Your task to perform on an android device: star an email in the gmail app Image 0: 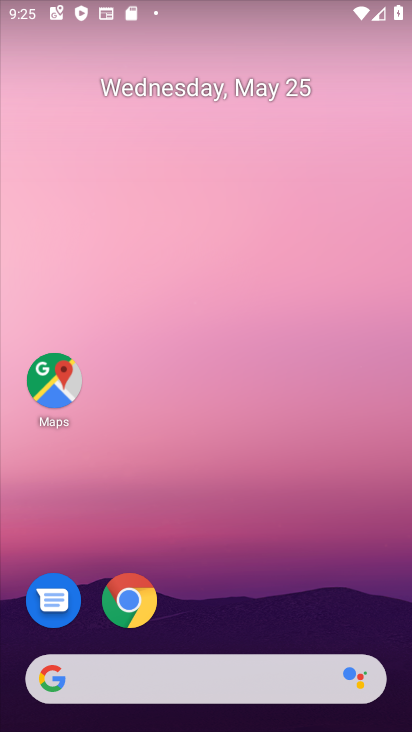
Step 0: drag from (279, 600) to (224, 31)
Your task to perform on an android device: star an email in the gmail app Image 1: 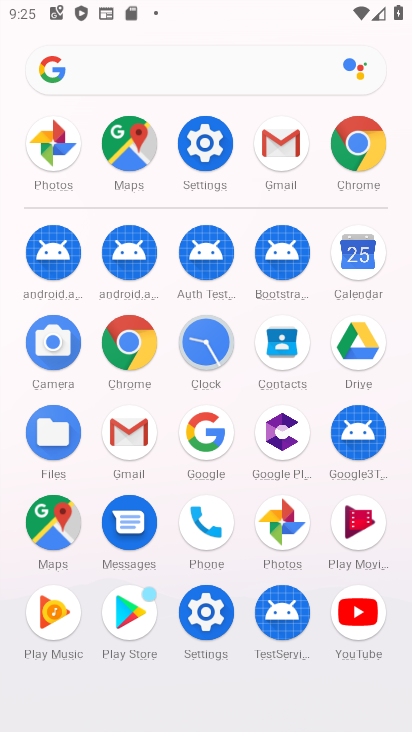
Step 1: drag from (3, 605) to (29, 251)
Your task to perform on an android device: star an email in the gmail app Image 2: 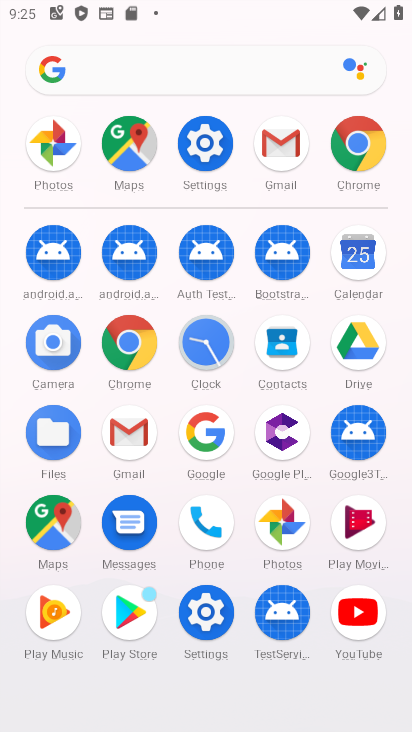
Step 2: click (125, 426)
Your task to perform on an android device: star an email in the gmail app Image 3: 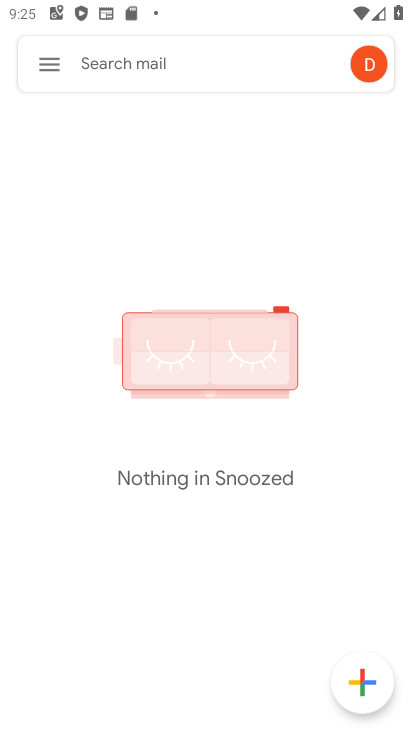
Step 3: click (51, 61)
Your task to perform on an android device: star an email in the gmail app Image 4: 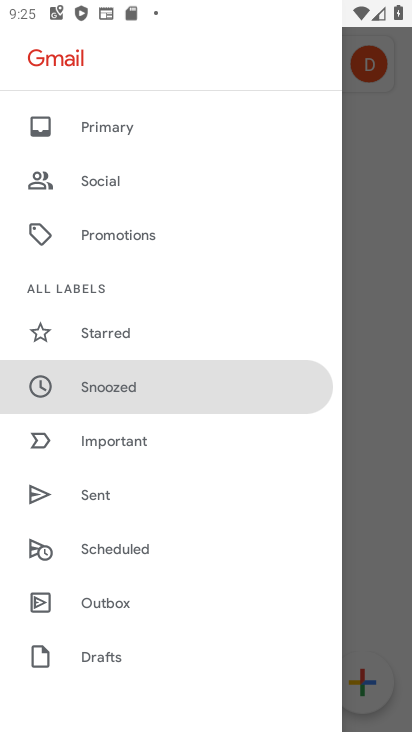
Step 4: click (116, 328)
Your task to perform on an android device: star an email in the gmail app Image 5: 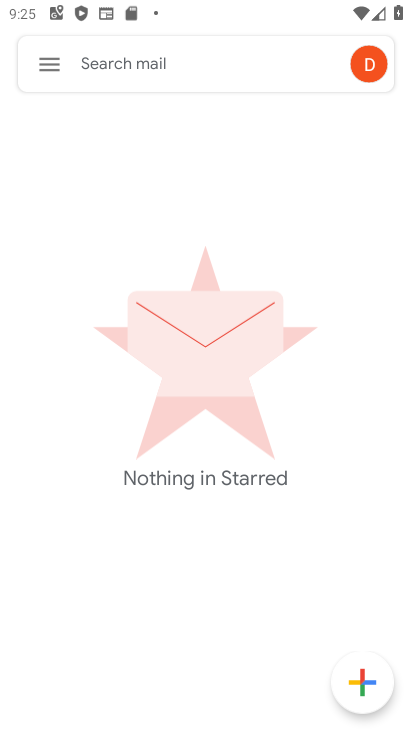
Step 5: task complete